Your task to perform on an android device: turn on notifications settings in the gmail app Image 0: 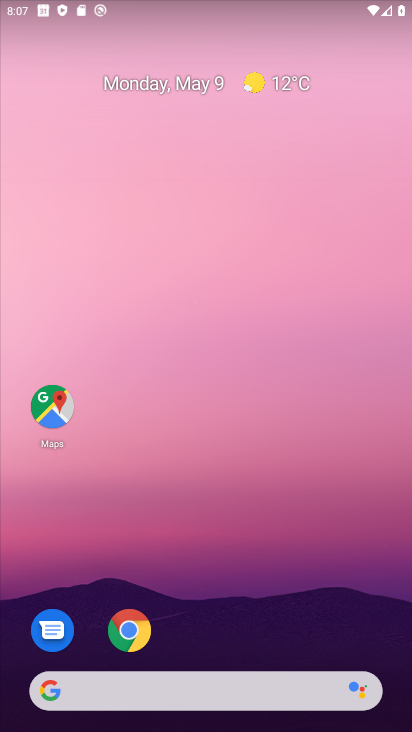
Step 0: drag from (195, 666) to (184, 283)
Your task to perform on an android device: turn on notifications settings in the gmail app Image 1: 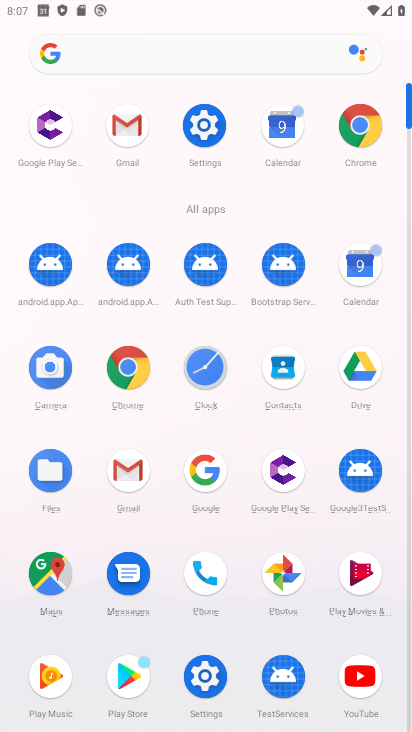
Step 1: click (125, 471)
Your task to perform on an android device: turn on notifications settings in the gmail app Image 2: 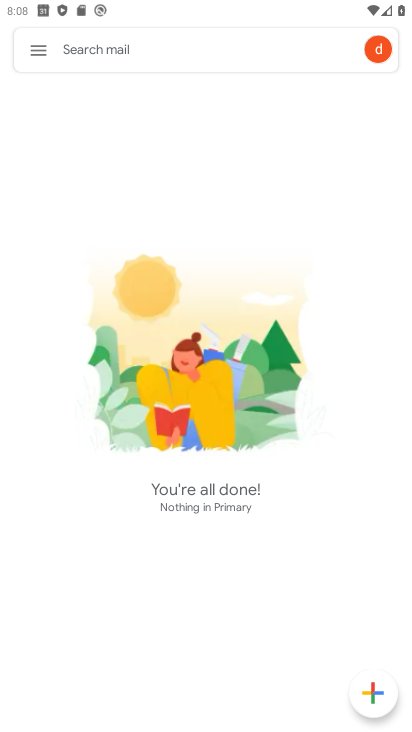
Step 2: click (36, 50)
Your task to perform on an android device: turn on notifications settings in the gmail app Image 3: 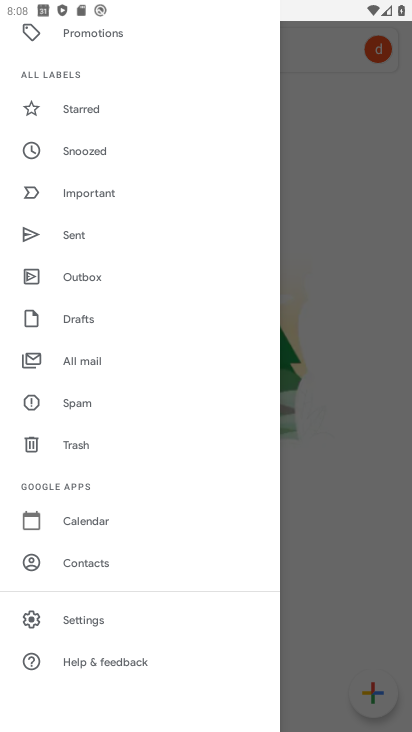
Step 3: click (87, 628)
Your task to perform on an android device: turn on notifications settings in the gmail app Image 4: 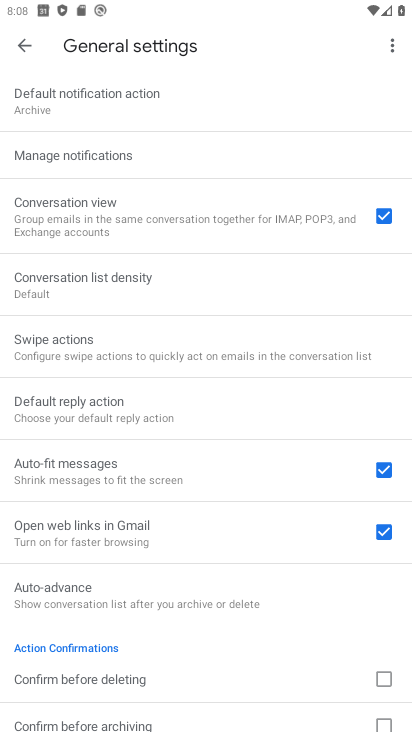
Step 4: click (86, 157)
Your task to perform on an android device: turn on notifications settings in the gmail app Image 5: 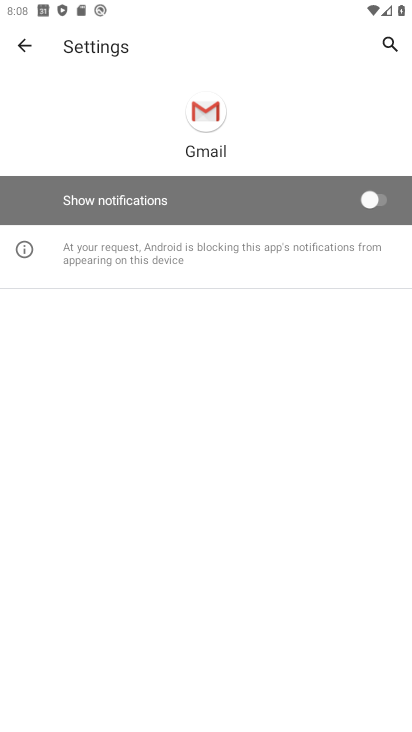
Step 5: click (386, 203)
Your task to perform on an android device: turn on notifications settings in the gmail app Image 6: 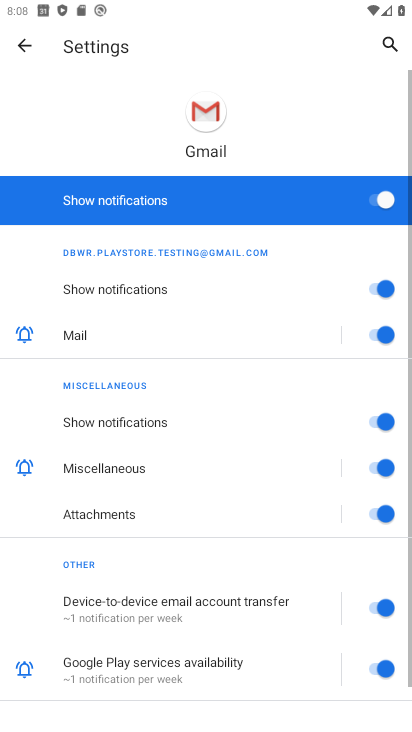
Step 6: task complete